Your task to perform on an android device: What is the recent news? Image 0: 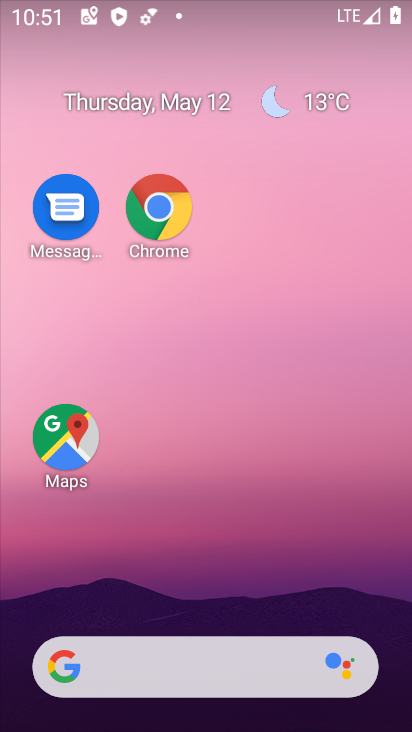
Step 0: click (219, 646)
Your task to perform on an android device: What is the recent news? Image 1: 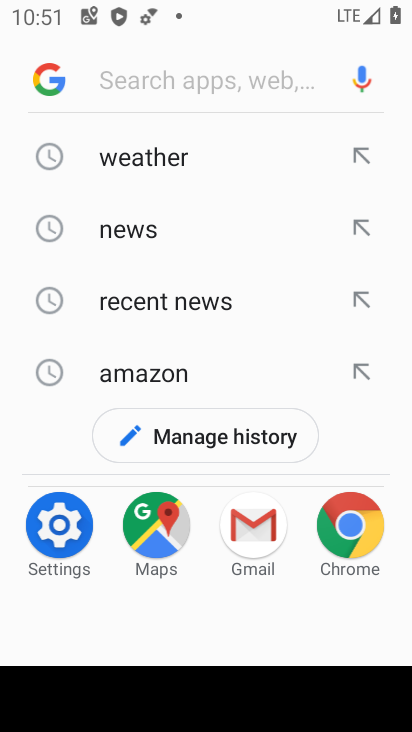
Step 1: click (135, 238)
Your task to perform on an android device: What is the recent news? Image 2: 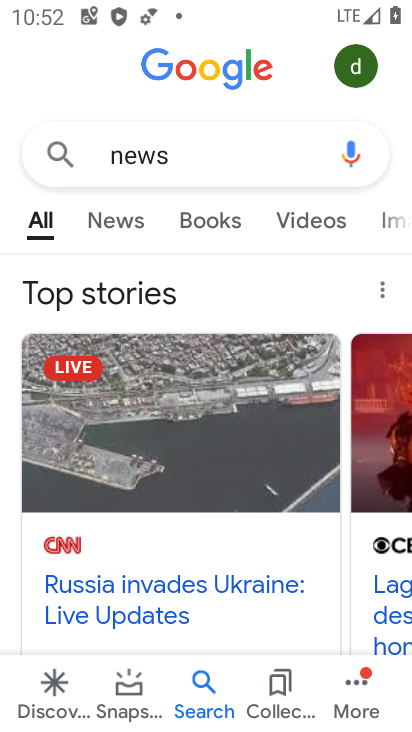
Step 2: task complete